Your task to perform on an android device: Go to Google Image 0: 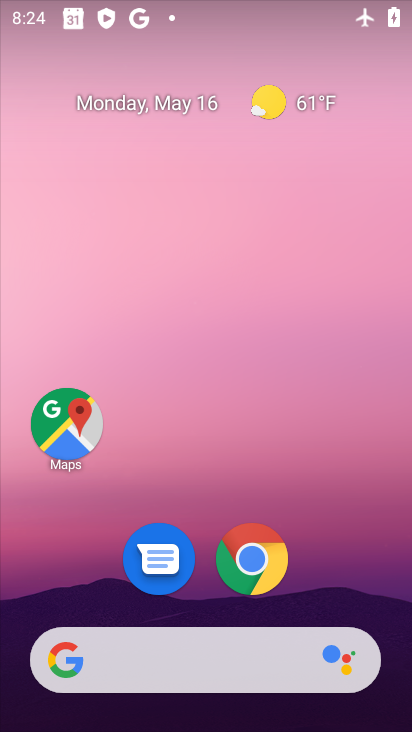
Step 0: drag from (194, 603) to (226, 93)
Your task to perform on an android device: Go to Google Image 1: 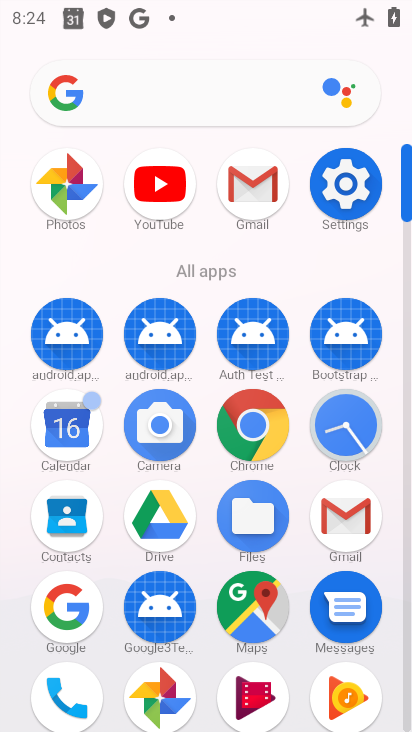
Step 1: click (54, 622)
Your task to perform on an android device: Go to Google Image 2: 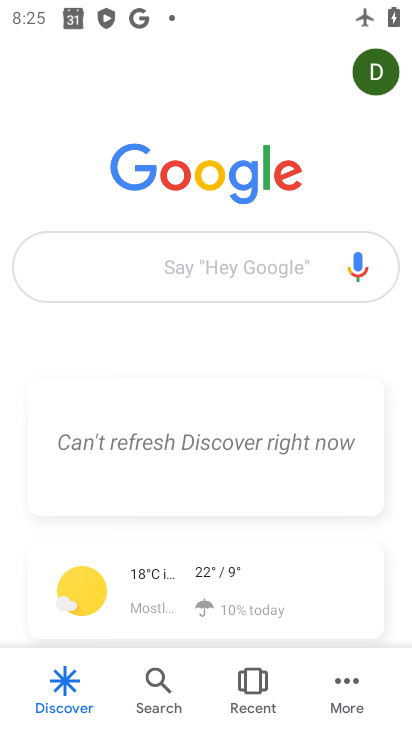
Step 2: task complete